Your task to perform on an android device: all mails in gmail Image 0: 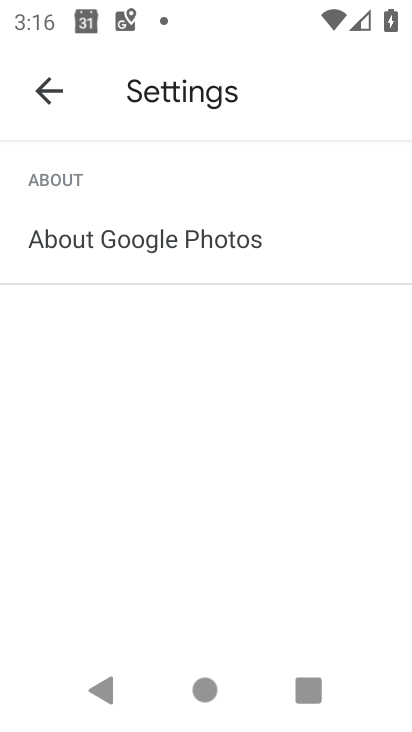
Step 0: press home button
Your task to perform on an android device: all mails in gmail Image 1: 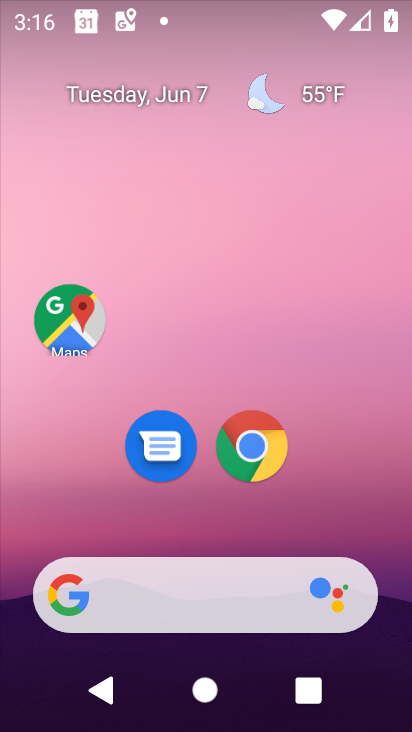
Step 1: drag from (223, 522) to (325, 7)
Your task to perform on an android device: all mails in gmail Image 2: 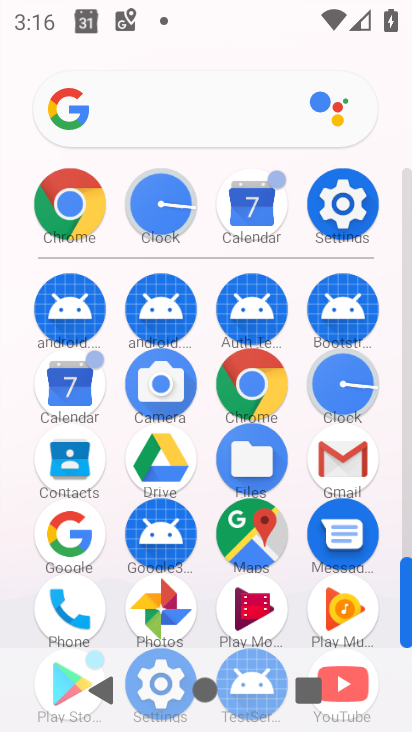
Step 2: click (345, 451)
Your task to perform on an android device: all mails in gmail Image 3: 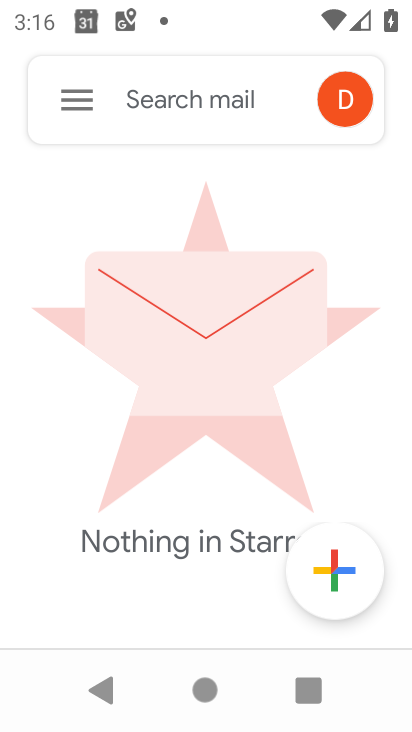
Step 3: click (35, 101)
Your task to perform on an android device: all mails in gmail Image 4: 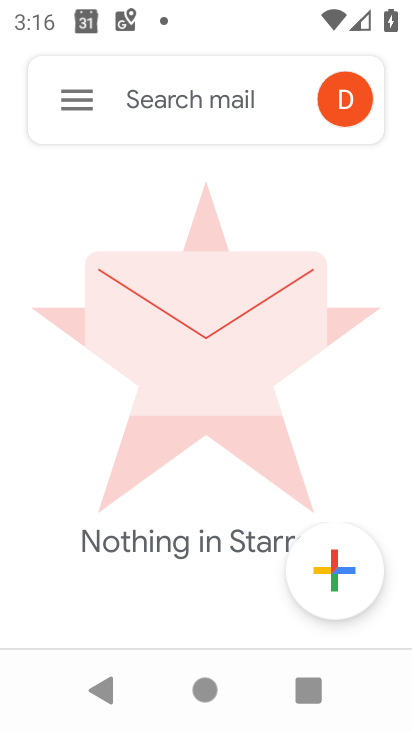
Step 4: click (58, 90)
Your task to perform on an android device: all mails in gmail Image 5: 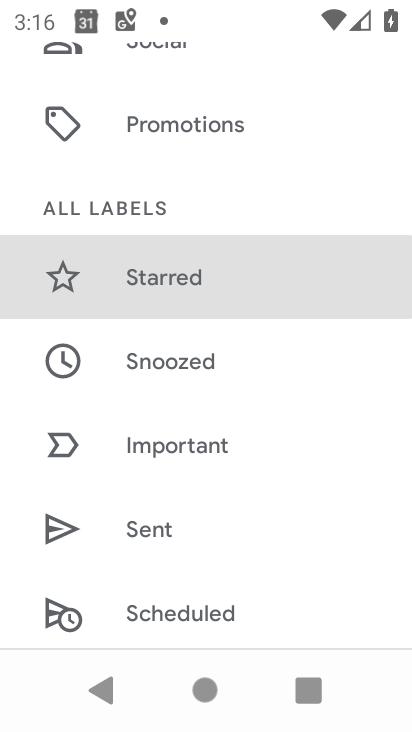
Step 5: drag from (203, 520) to (224, 152)
Your task to perform on an android device: all mails in gmail Image 6: 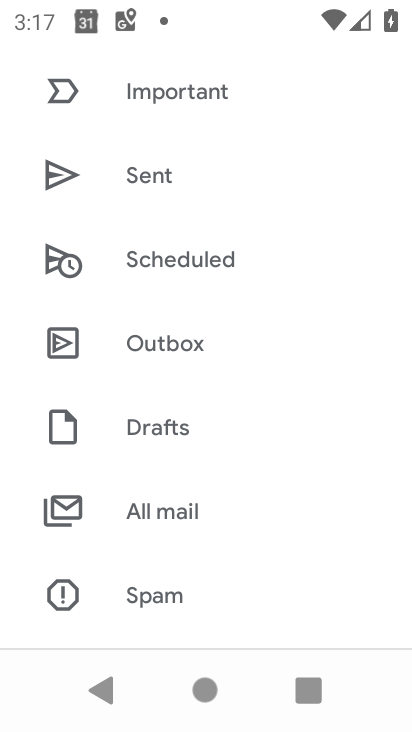
Step 6: click (166, 517)
Your task to perform on an android device: all mails in gmail Image 7: 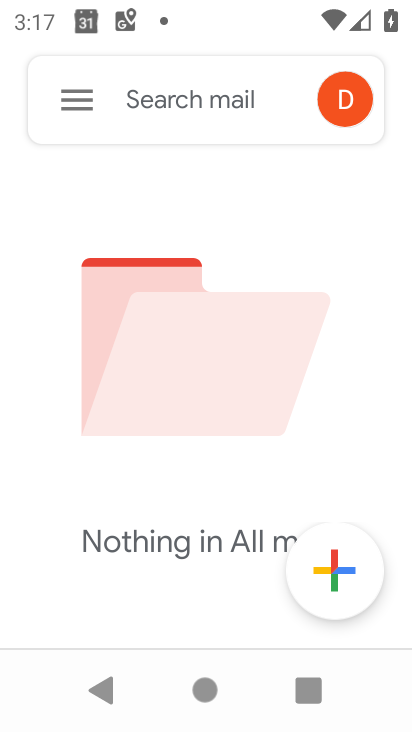
Step 7: task complete